Your task to perform on an android device: What is the news today? Image 0: 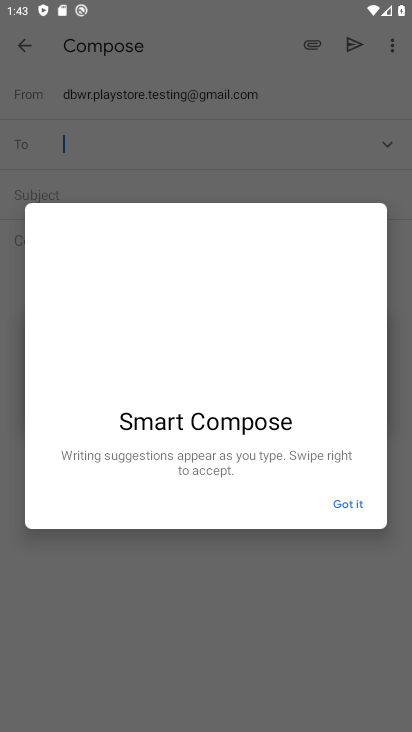
Step 0: press home button
Your task to perform on an android device: What is the news today? Image 1: 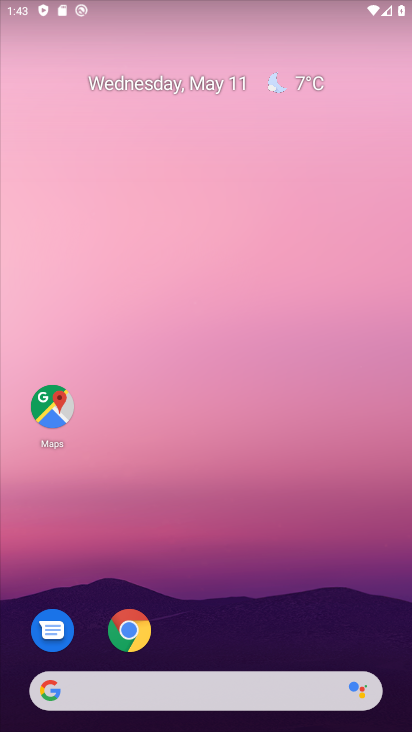
Step 1: drag from (361, 640) to (294, 70)
Your task to perform on an android device: What is the news today? Image 2: 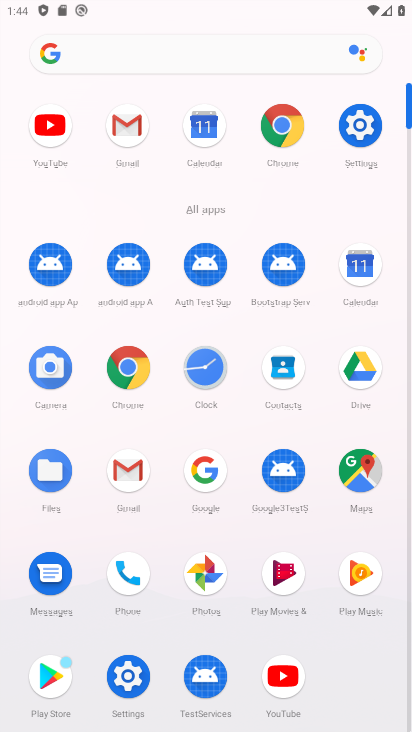
Step 2: click (129, 374)
Your task to perform on an android device: What is the news today? Image 3: 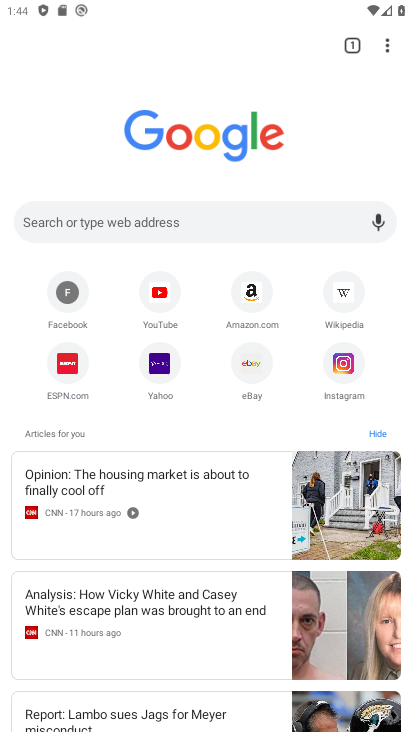
Step 3: click (180, 543)
Your task to perform on an android device: What is the news today? Image 4: 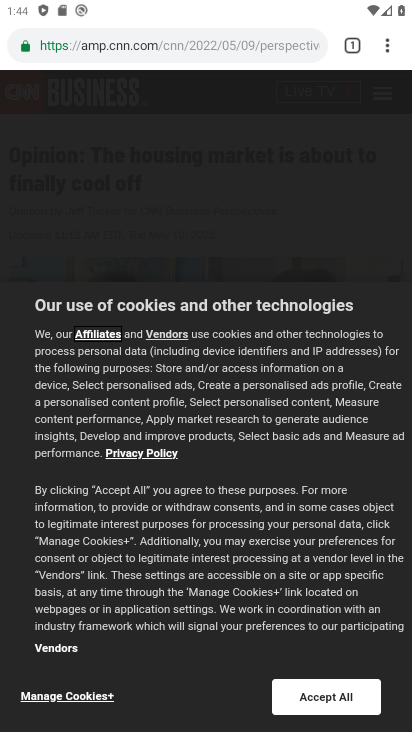
Step 4: task complete